Your task to perform on an android device: Search for hotels in Denver Image 0: 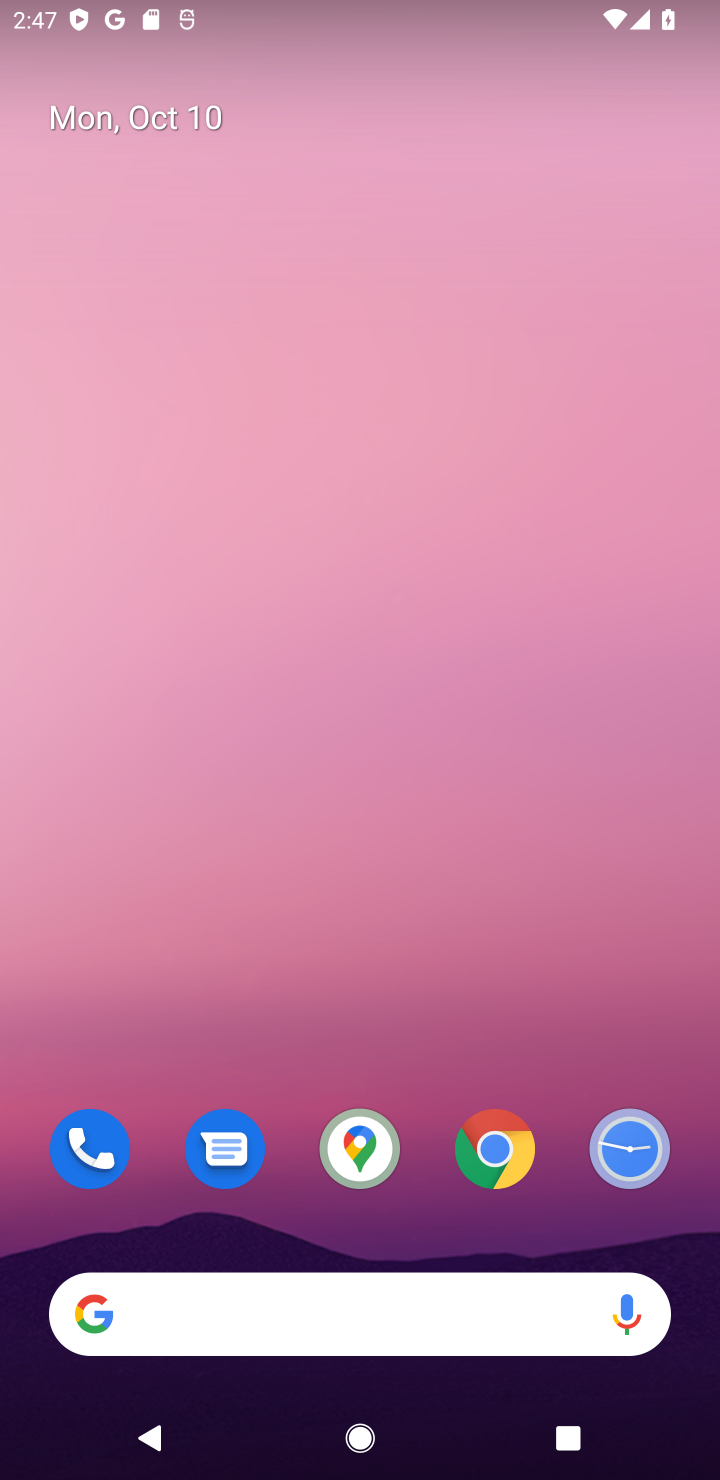
Step 0: click (450, 1305)
Your task to perform on an android device: Search for hotels in Denver Image 1: 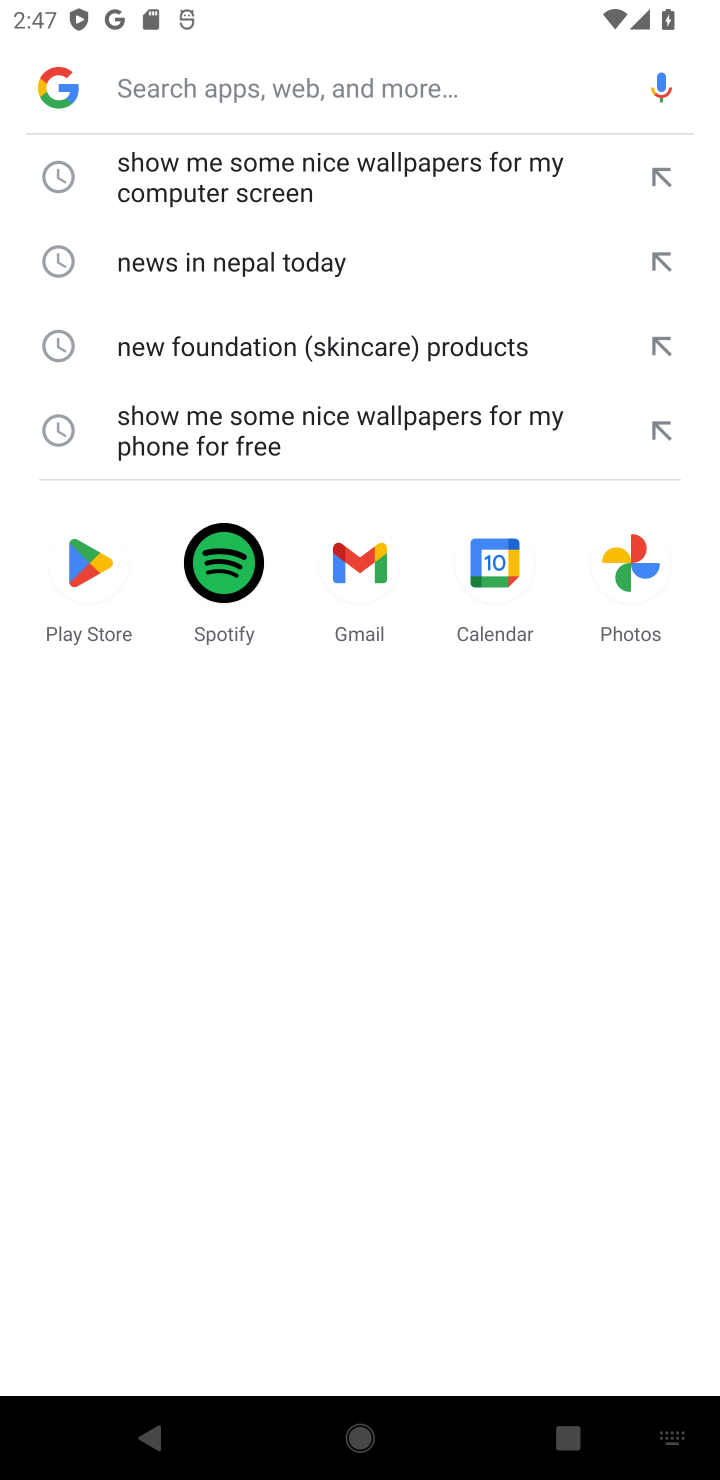
Step 1: type "Show me some nice wallpapers for my computer"
Your task to perform on an android device: Search for hotels in Denver Image 2: 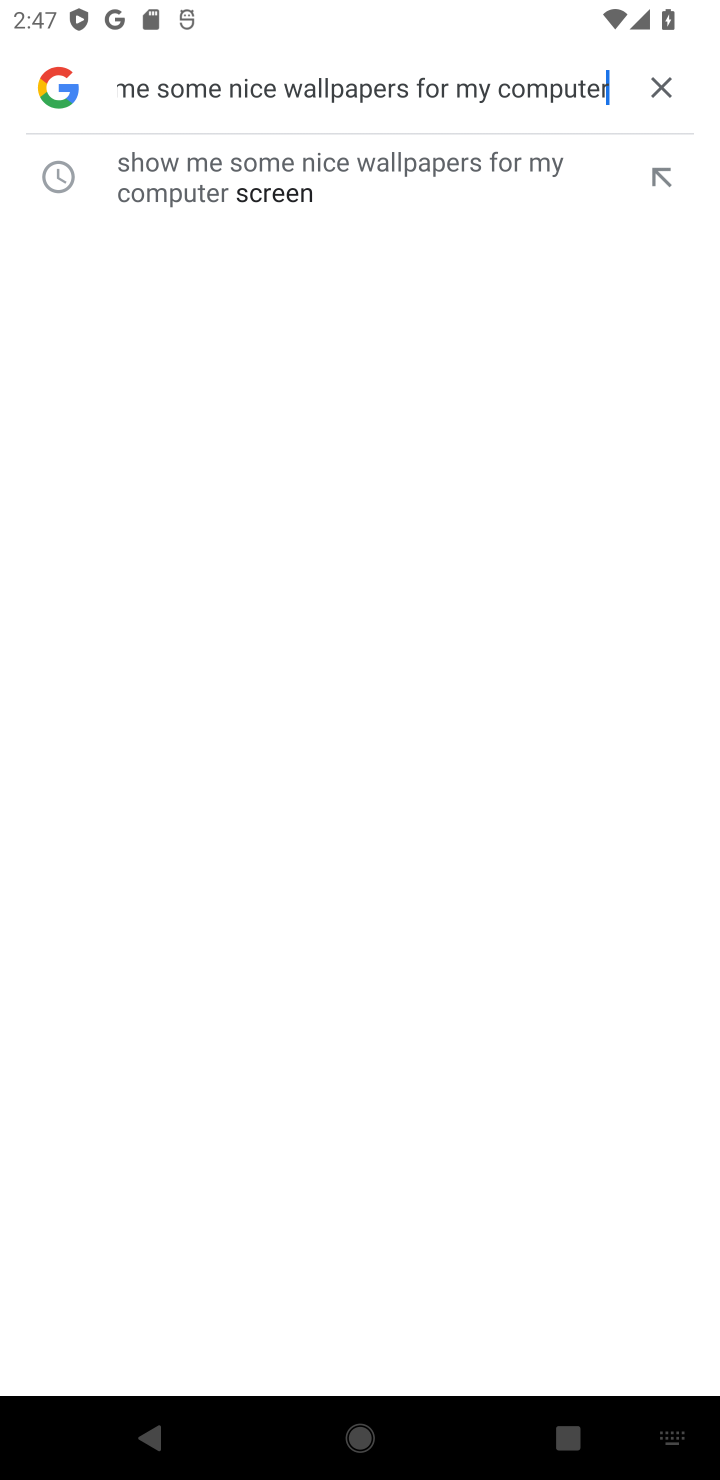
Step 2: click (449, 203)
Your task to perform on an android device: Search for hotels in Denver Image 3: 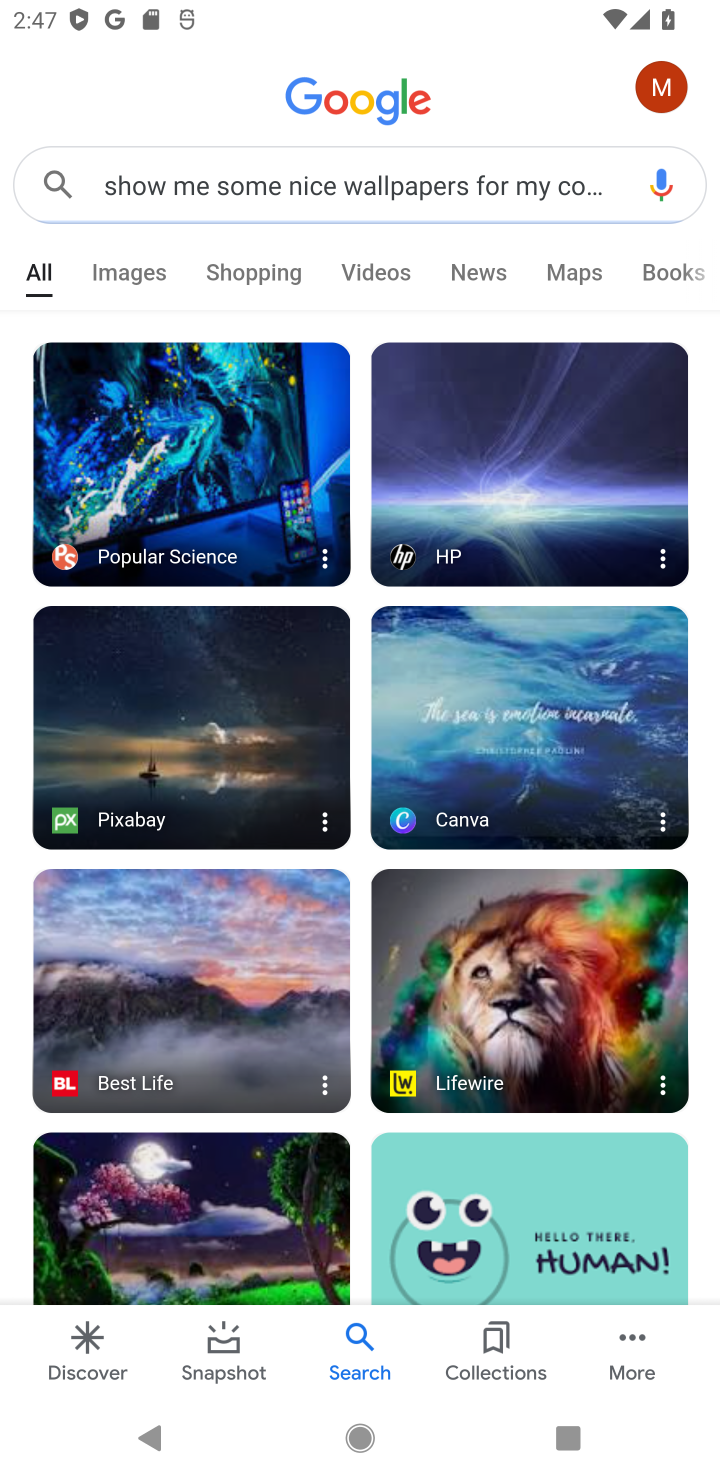
Step 3: click (533, 201)
Your task to perform on an android device: Search for hotels in Denver Image 4: 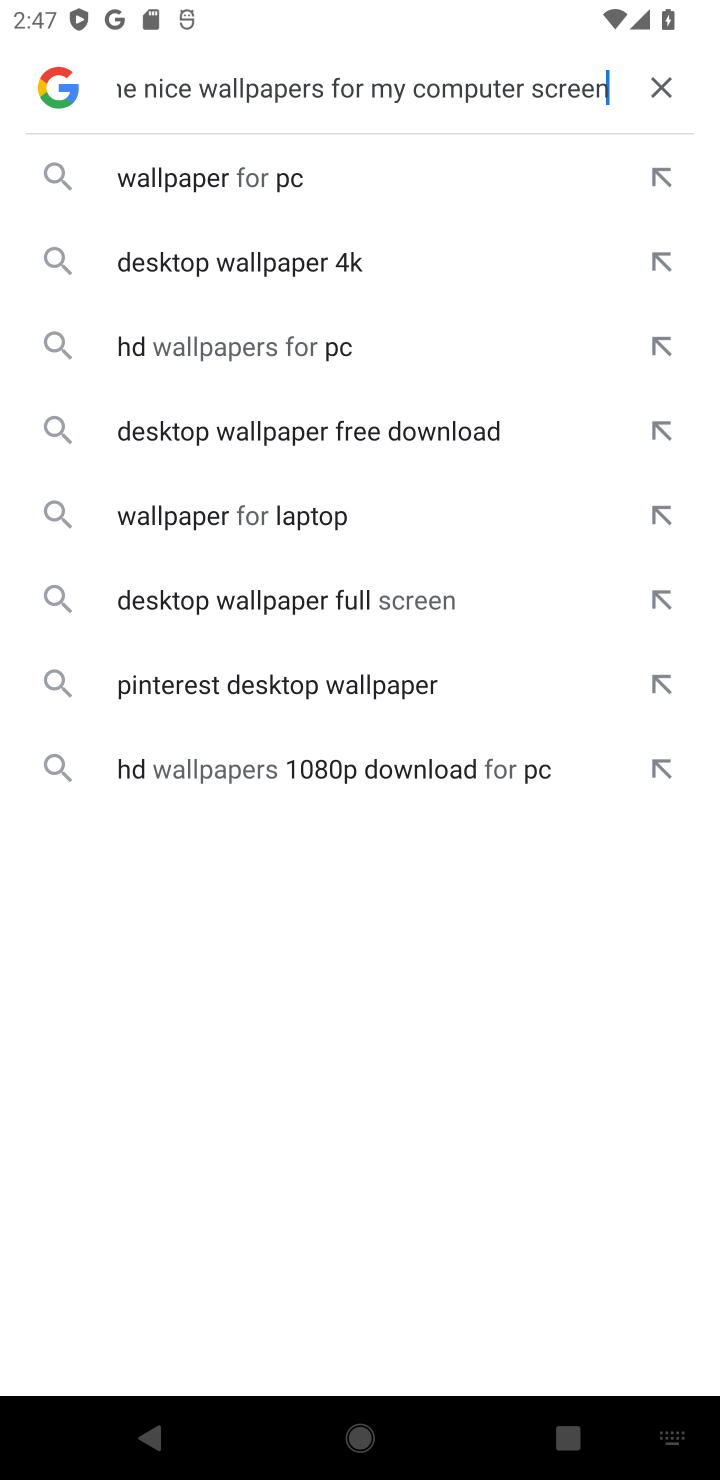
Step 4: click (665, 91)
Your task to perform on an android device: Search for hotels in Denver Image 5: 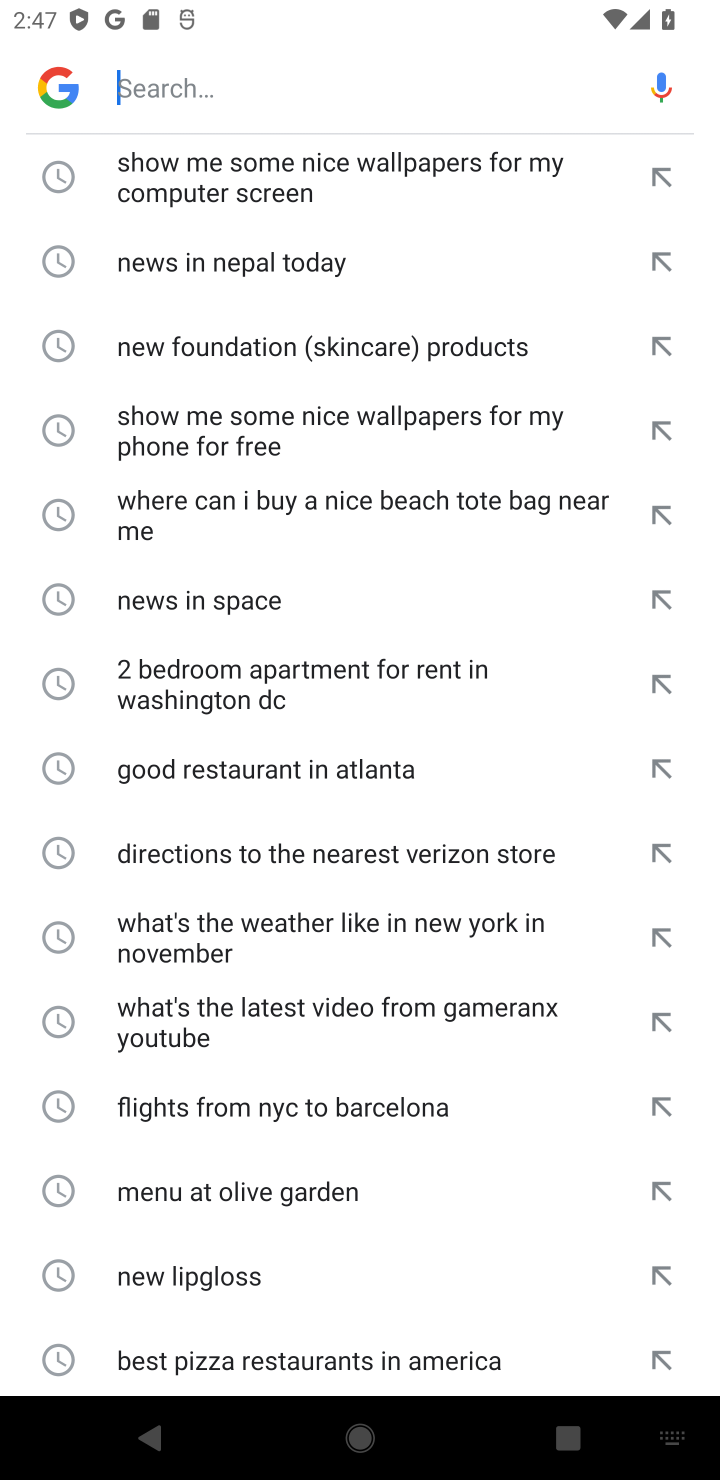
Step 5: type "Show me some nice wallpapers for my computer"
Your task to perform on an android device: Search for hotels in Denver Image 6: 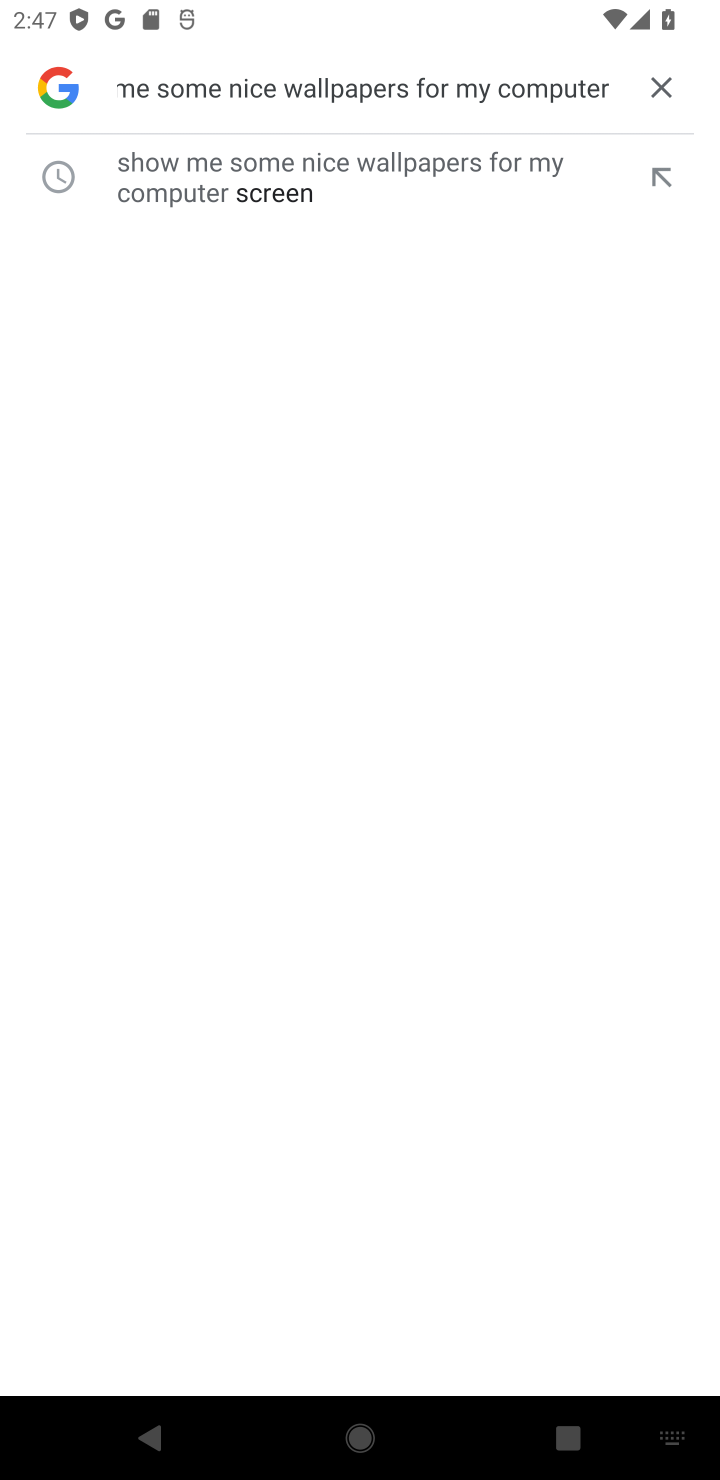
Step 6: click (671, 81)
Your task to perform on an android device: Search for hotels in Denver Image 7: 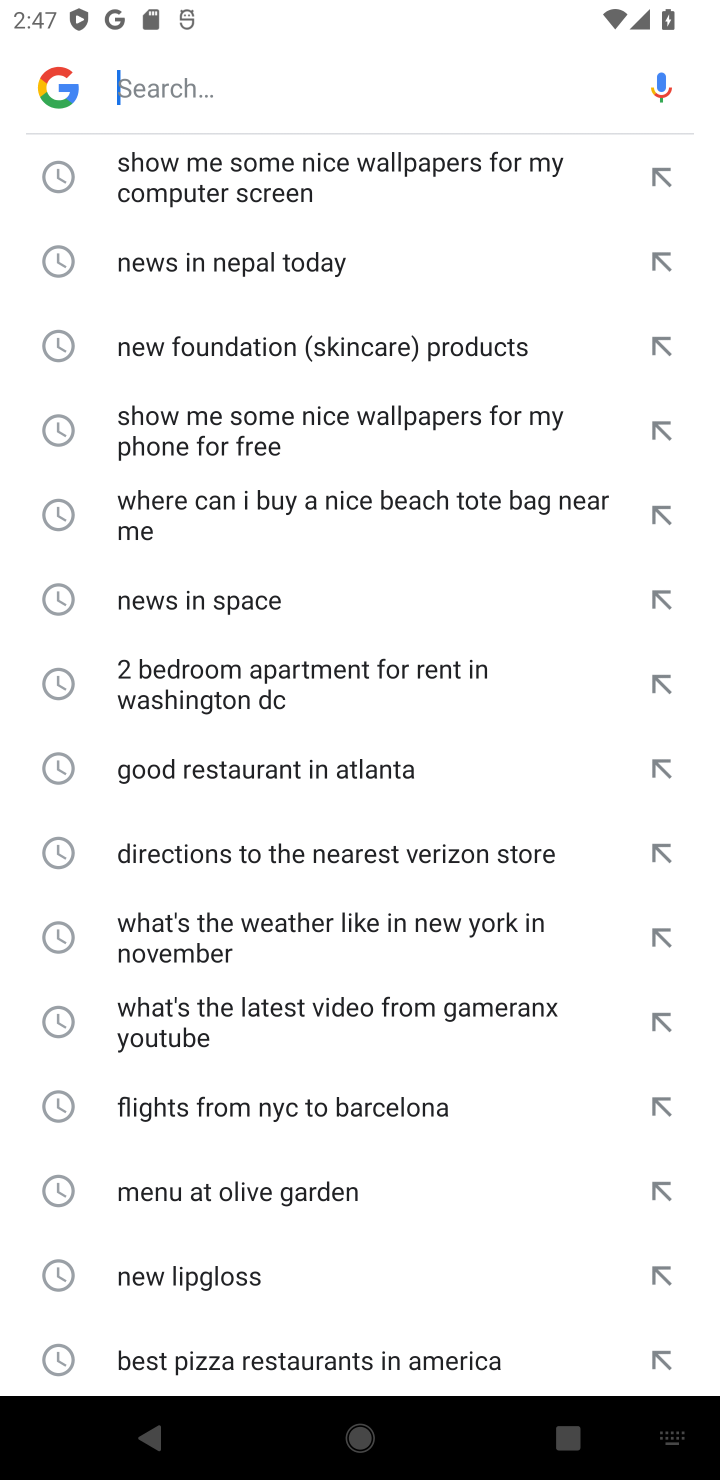
Step 7: type "Search for hotels in Denver"
Your task to perform on an android device: Search for hotels in Denver Image 8: 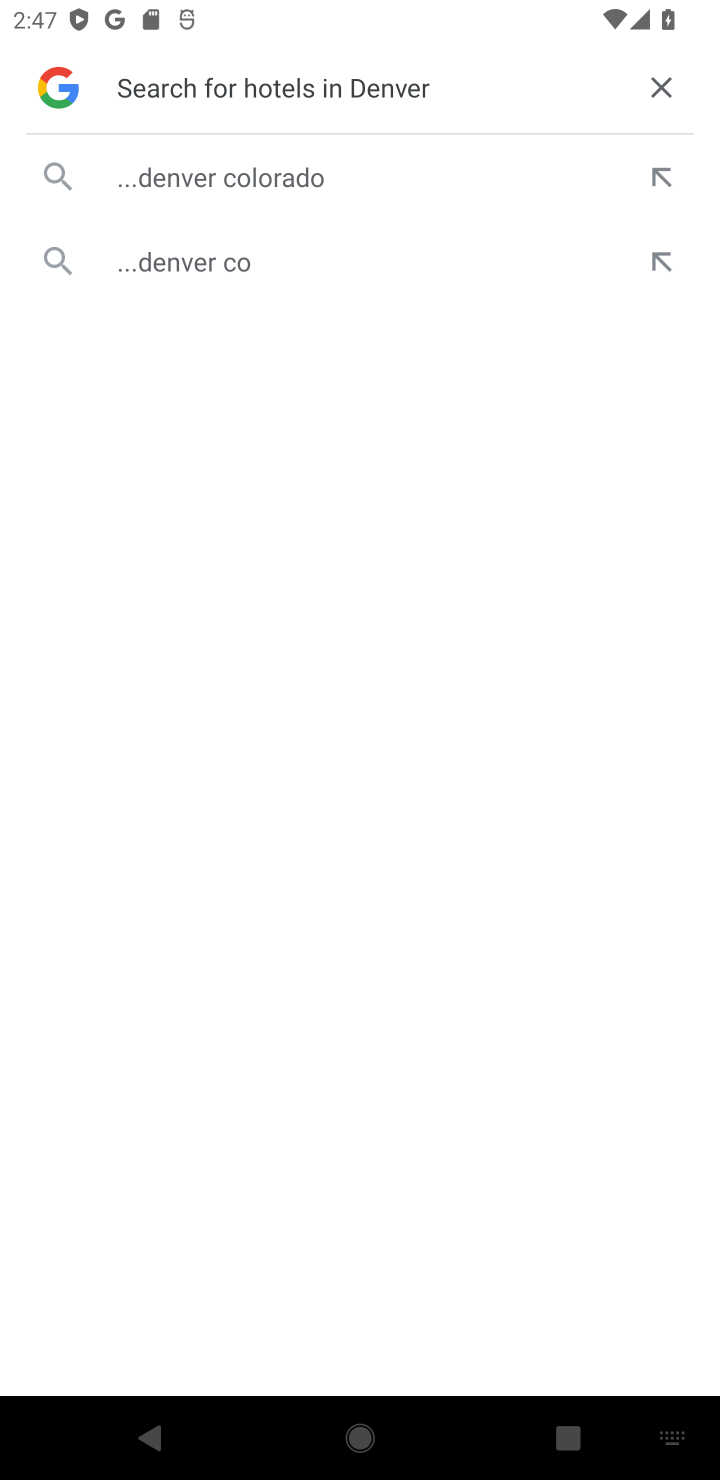
Step 8: click (274, 174)
Your task to perform on an android device: Search for hotels in Denver Image 9: 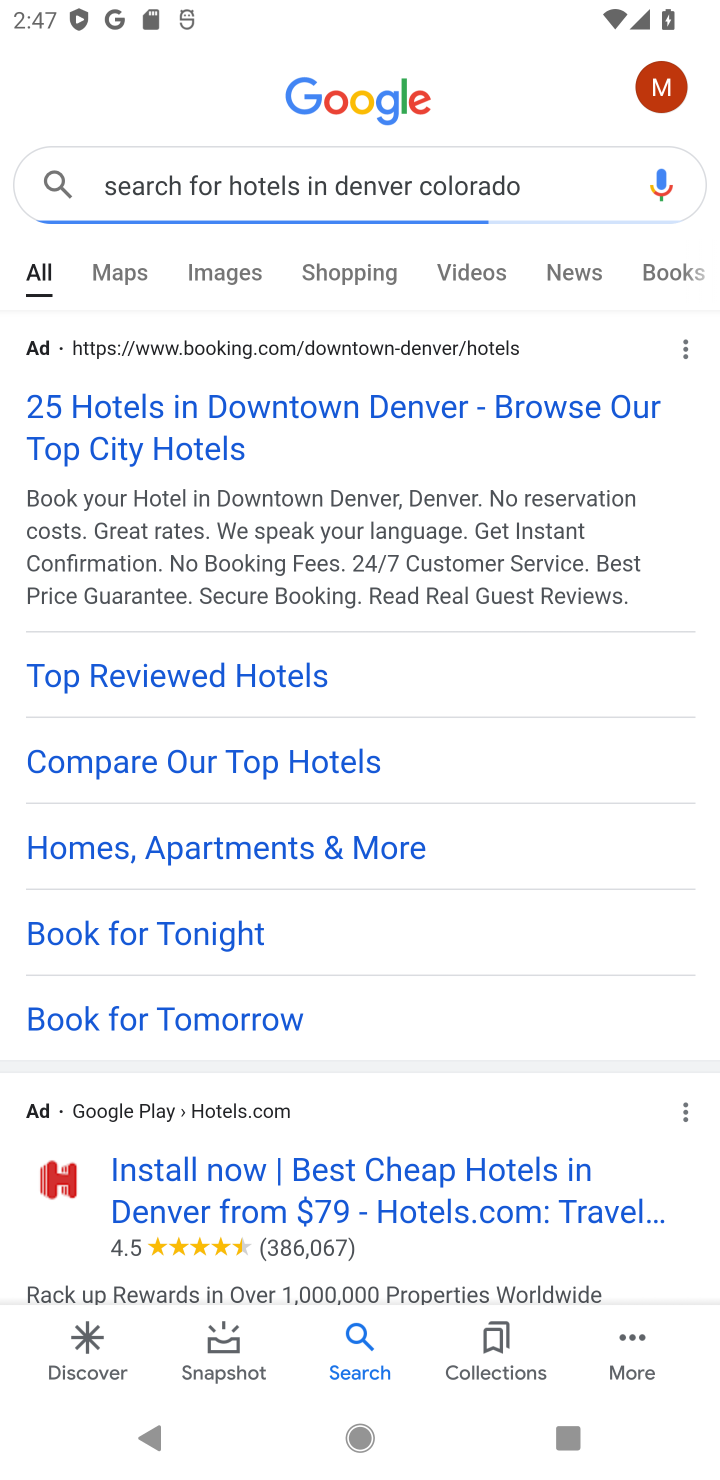
Step 9: task complete